Your task to perform on an android device: turn on priority inbox in the gmail app Image 0: 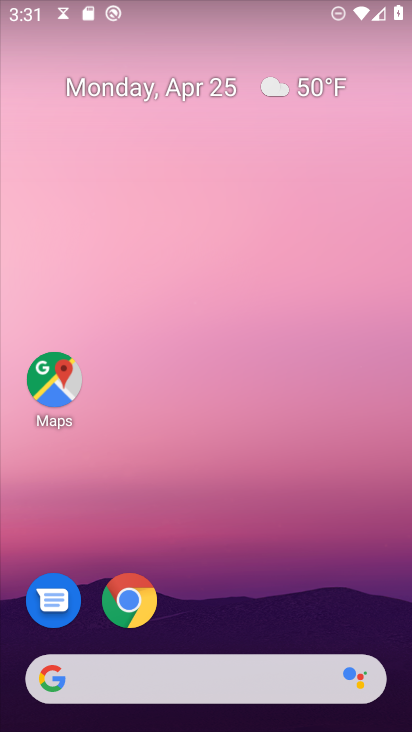
Step 0: drag from (221, 528) to (373, 22)
Your task to perform on an android device: turn on priority inbox in the gmail app Image 1: 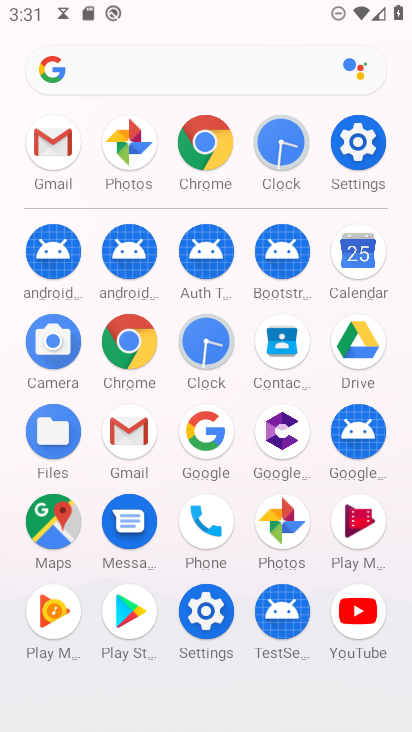
Step 1: click (138, 436)
Your task to perform on an android device: turn on priority inbox in the gmail app Image 2: 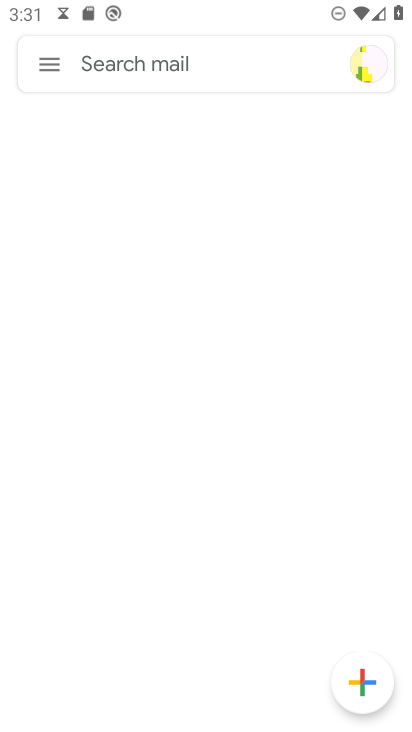
Step 2: click (41, 69)
Your task to perform on an android device: turn on priority inbox in the gmail app Image 3: 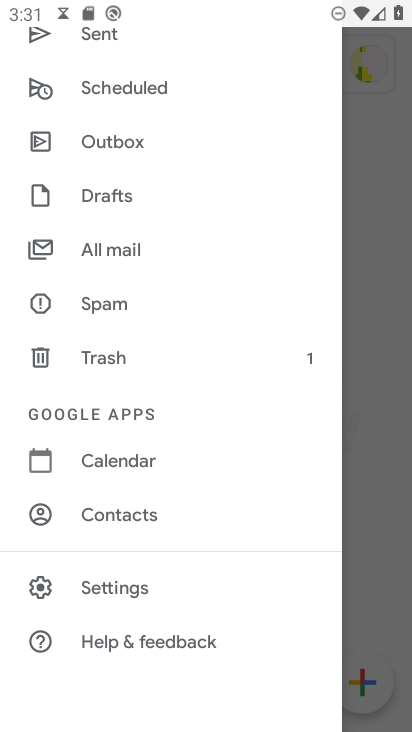
Step 3: click (123, 589)
Your task to perform on an android device: turn on priority inbox in the gmail app Image 4: 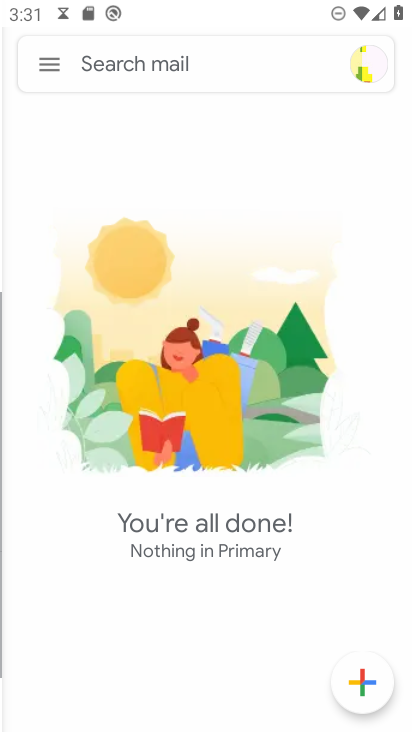
Step 4: drag from (126, 588) to (123, 306)
Your task to perform on an android device: turn on priority inbox in the gmail app Image 5: 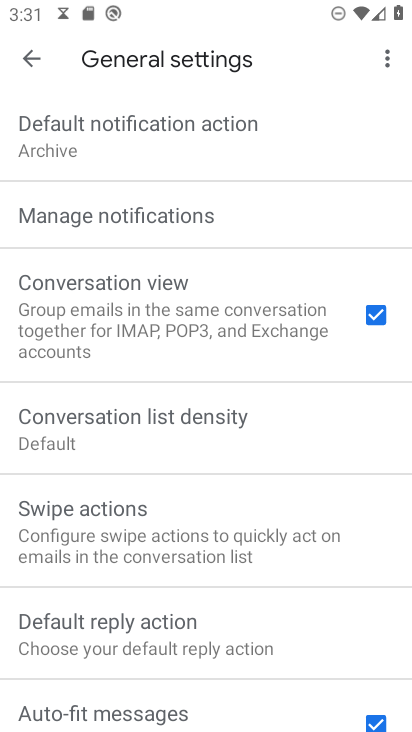
Step 5: click (32, 61)
Your task to perform on an android device: turn on priority inbox in the gmail app Image 6: 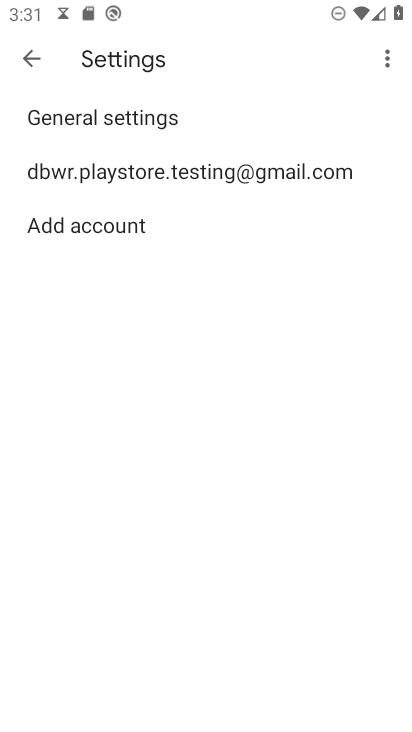
Step 6: click (111, 160)
Your task to perform on an android device: turn on priority inbox in the gmail app Image 7: 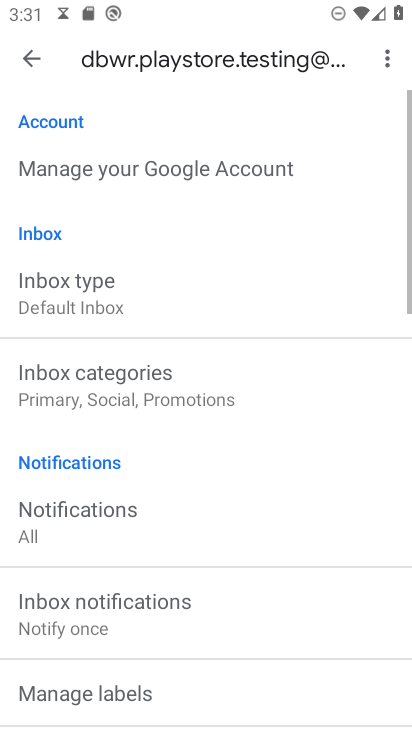
Step 7: click (101, 291)
Your task to perform on an android device: turn on priority inbox in the gmail app Image 8: 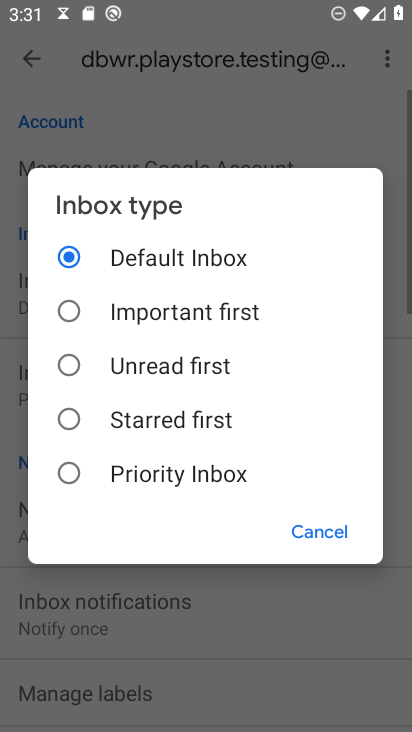
Step 8: click (161, 482)
Your task to perform on an android device: turn on priority inbox in the gmail app Image 9: 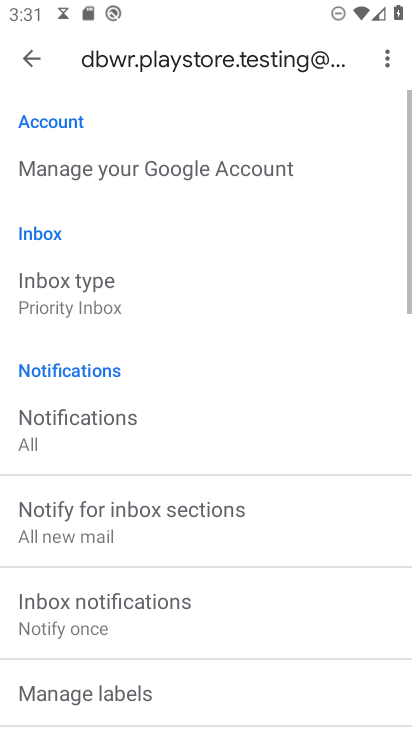
Step 9: task complete